Your task to perform on an android device: Open eBay Image 0: 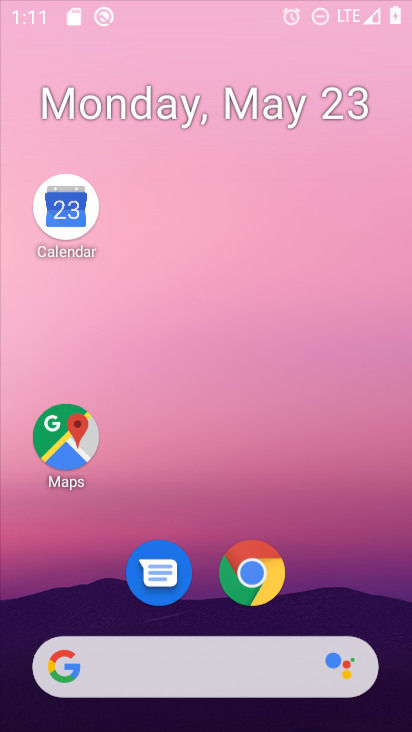
Step 0: drag from (342, 500) to (329, 94)
Your task to perform on an android device: Open eBay Image 1: 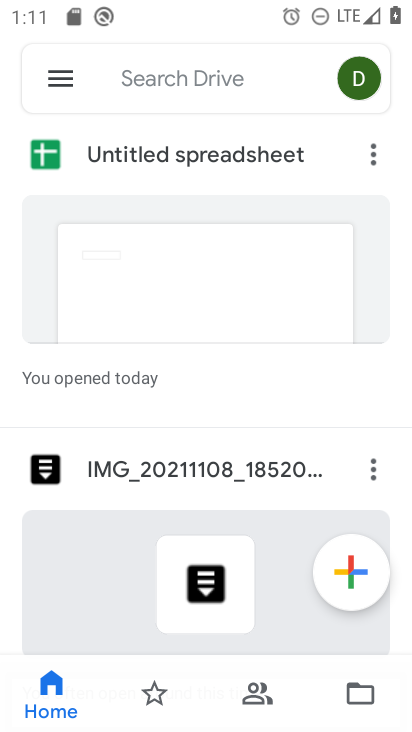
Step 1: press home button
Your task to perform on an android device: Open eBay Image 2: 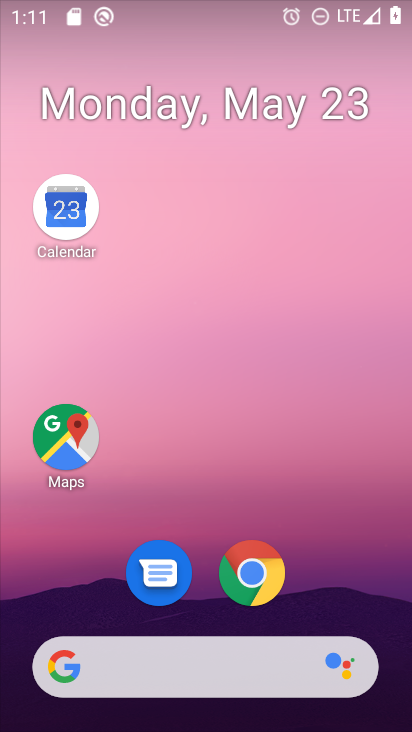
Step 2: click (243, 572)
Your task to perform on an android device: Open eBay Image 3: 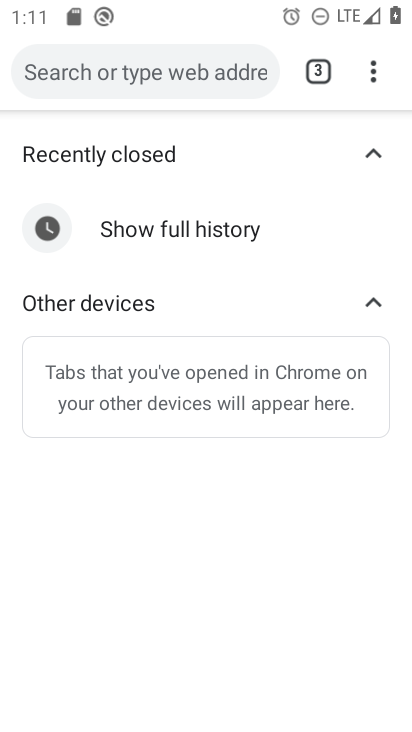
Step 3: click (153, 69)
Your task to perform on an android device: Open eBay Image 4: 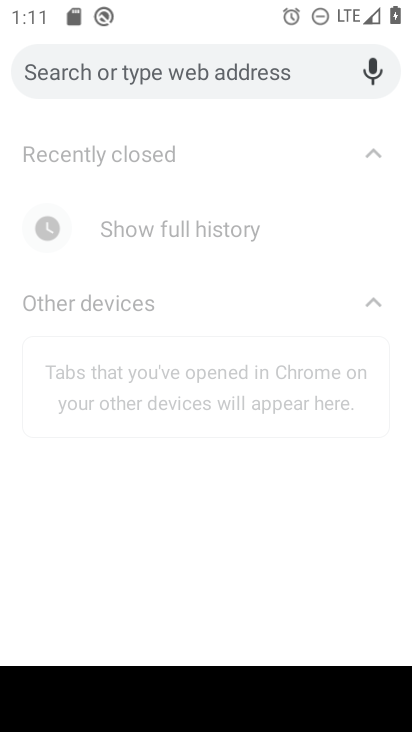
Step 4: type "ebay"
Your task to perform on an android device: Open eBay Image 5: 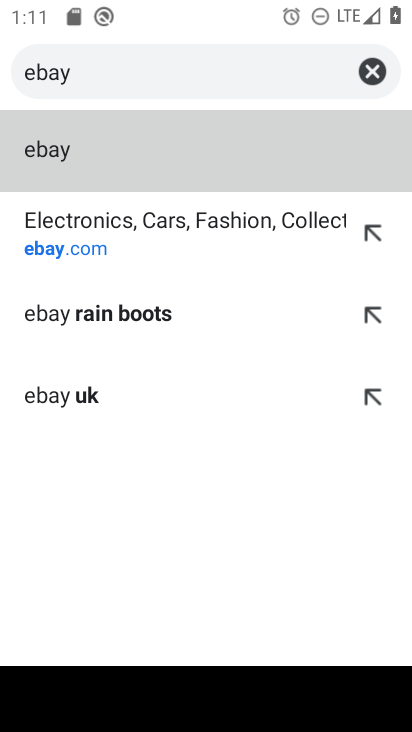
Step 5: click (46, 154)
Your task to perform on an android device: Open eBay Image 6: 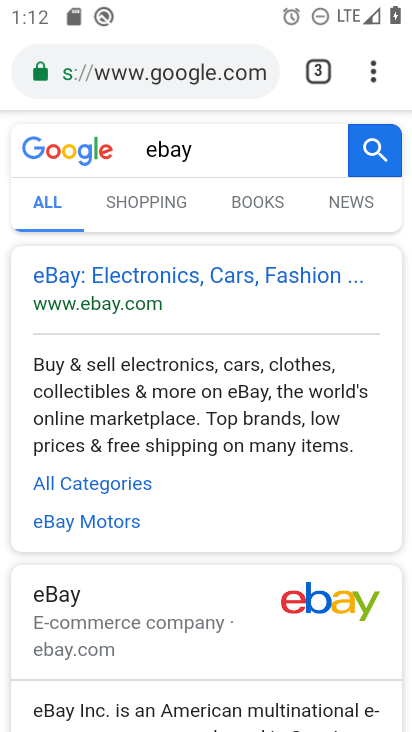
Step 6: click (123, 281)
Your task to perform on an android device: Open eBay Image 7: 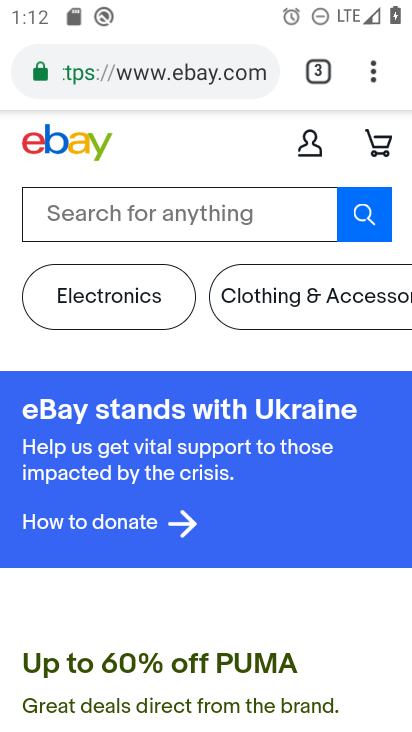
Step 7: task complete